Your task to perform on an android device: turn on notifications settings in the gmail app Image 0: 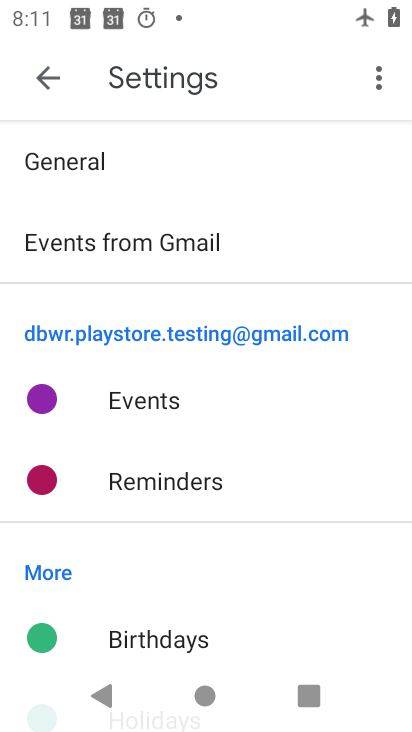
Step 0: press home button
Your task to perform on an android device: turn on notifications settings in the gmail app Image 1: 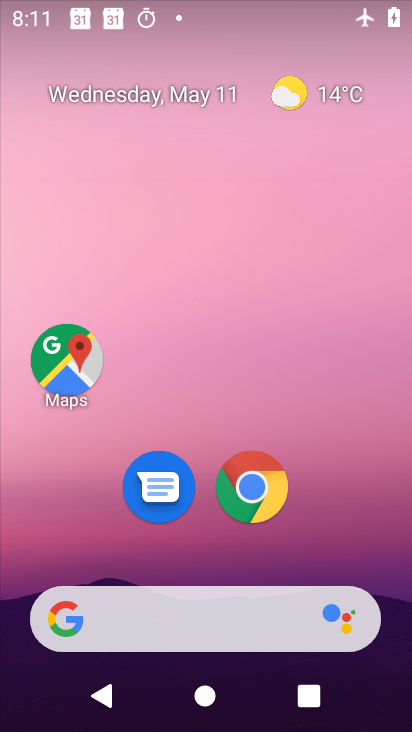
Step 1: drag from (228, 725) to (224, 150)
Your task to perform on an android device: turn on notifications settings in the gmail app Image 2: 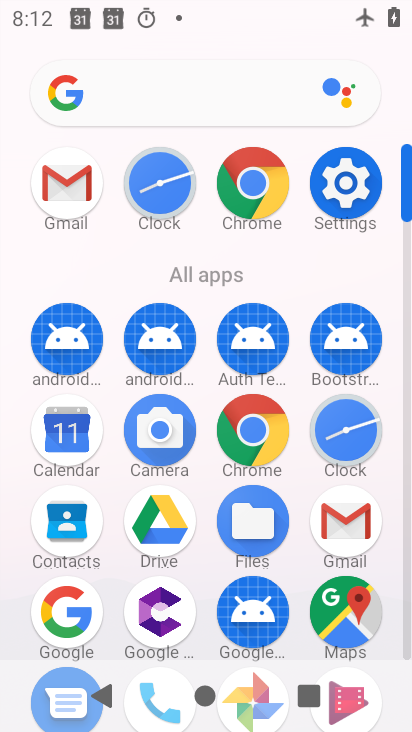
Step 2: click (347, 519)
Your task to perform on an android device: turn on notifications settings in the gmail app Image 3: 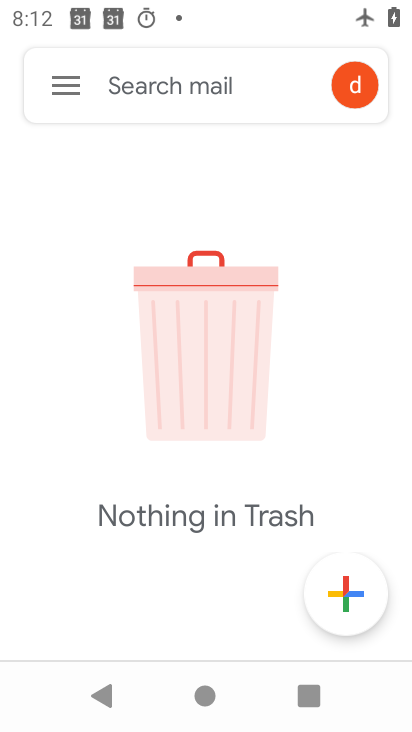
Step 3: click (67, 83)
Your task to perform on an android device: turn on notifications settings in the gmail app Image 4: 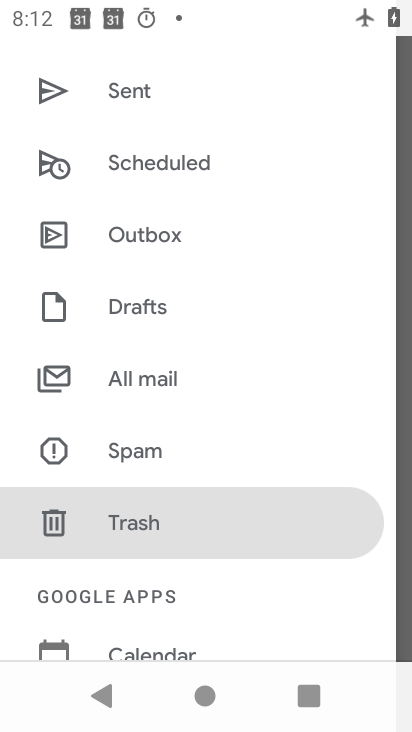
Step 4: drag from (110, 635) to (162, 225)
Your task to perform on an android device: turn on notifications settings in the gmail app Image 5: 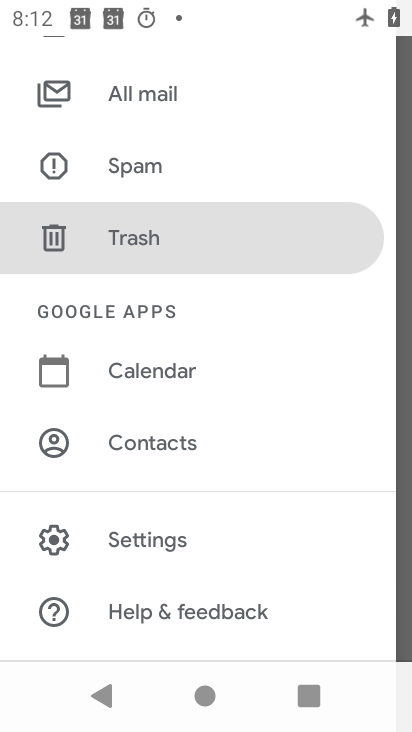
Step 5: click (146, 538)
Your task to perform on an android device: turn on notifications settings in the gmail app Image 6: 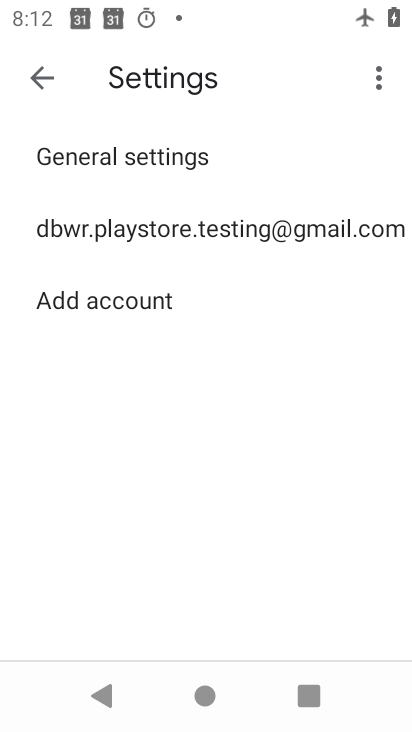
Step 6: click (199, 229)
Your task to perform on an android device: turn on notifications settings in the gmail app Image 7: 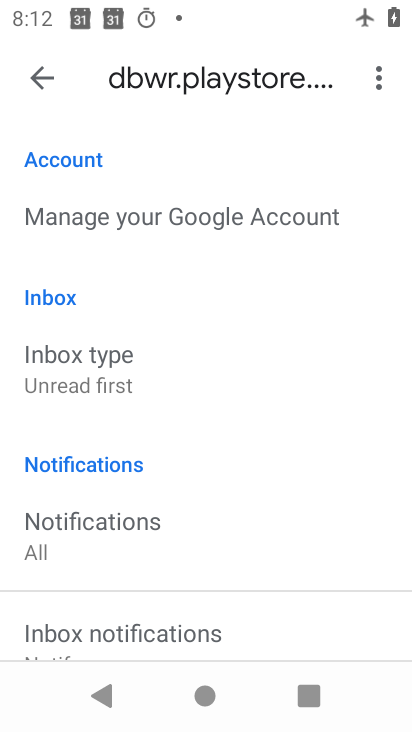
Step 7: task complete